Your task to perform on an android device: open sync settings in chrome Image 0: 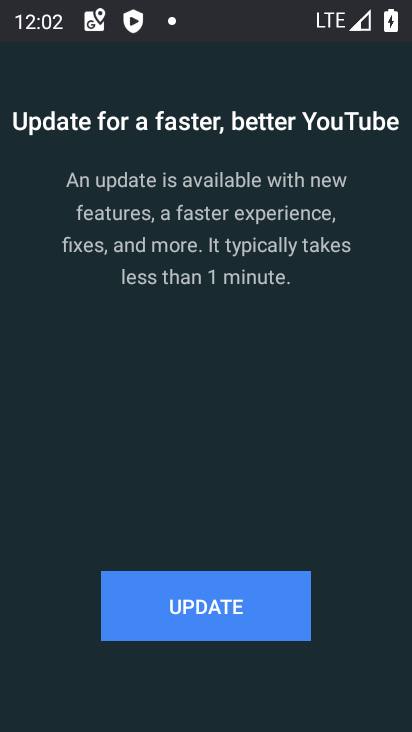
Step 0: press home button
Your task to perform on an android device: open sync settings in chrome Image 1: 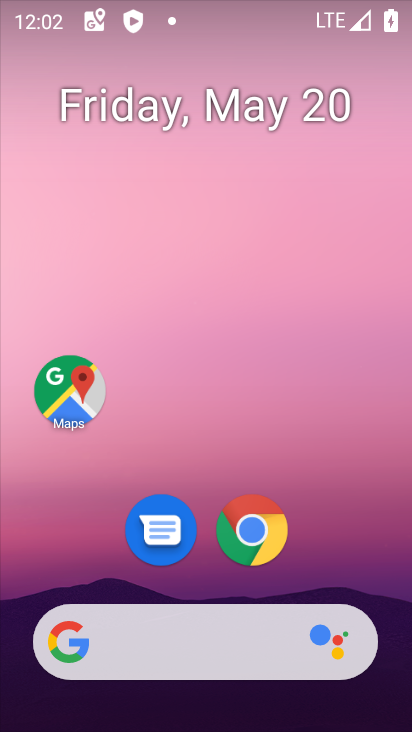
Step 1: click (245, 541)
Your task to perform on an android device: open sync settings in chrome Image 2: 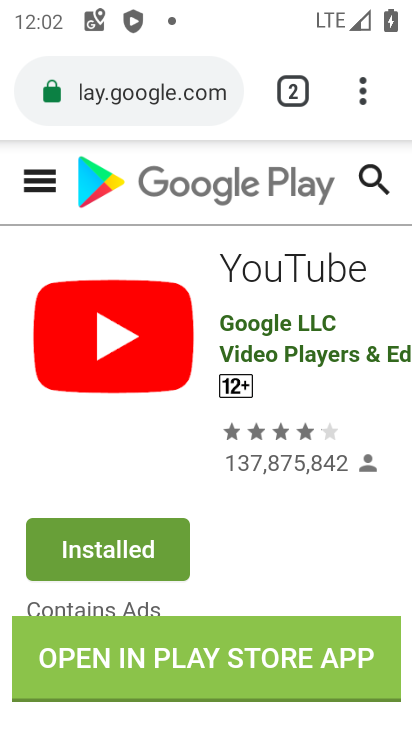
Step 2: click (374, 94)
Your task to perform on an android device: open sync settings in chrome Image 3: 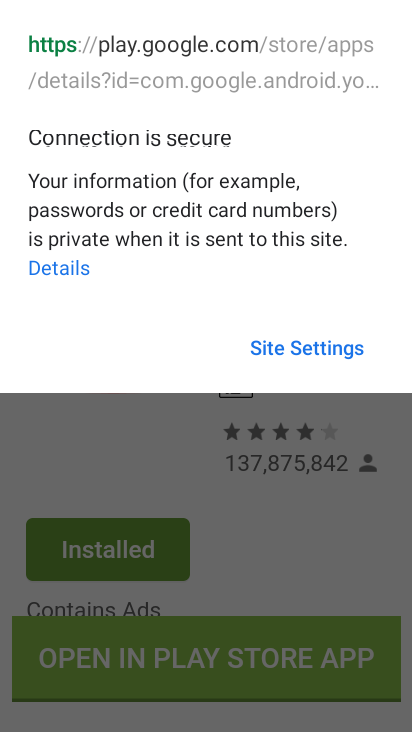
Step 3: click (276, 448)
Your task to perform on an android device: open sync settings in chrome Image 4: 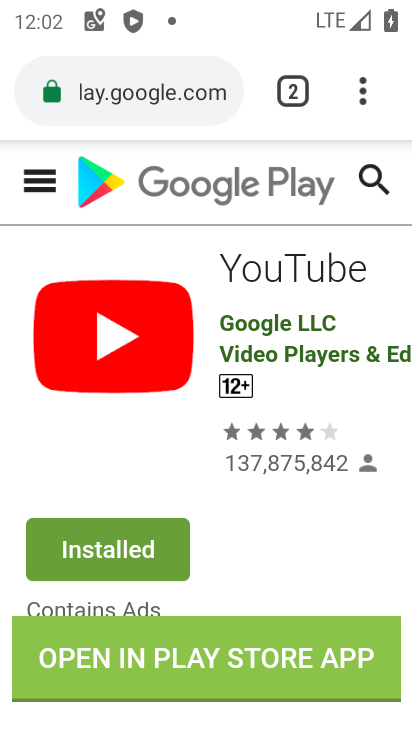
Step 4: click (368, 85)
Your task to perform on an android device: open sync settings in chrome Image 5: 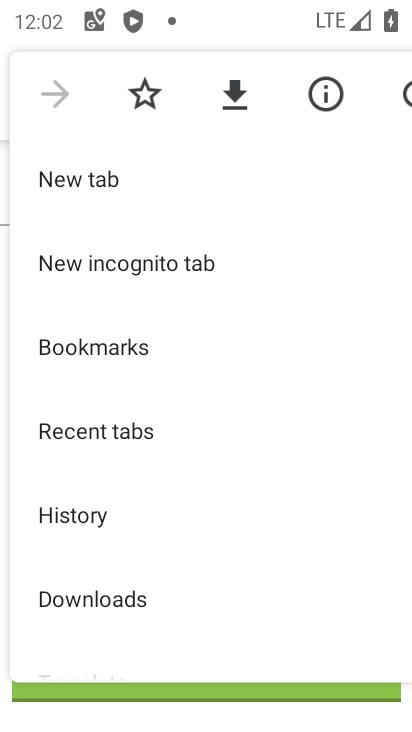
Step 5: drag from (251, 565) to (302, 116)
Your task to perform on an android device: open sync settings in chrome Image 6: 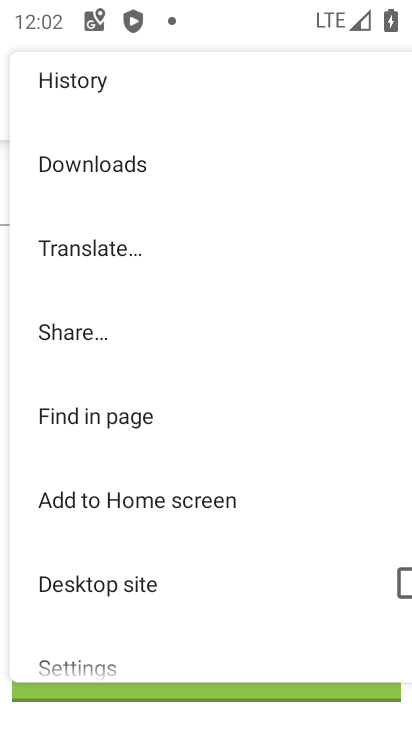
Step 6: drag from (210, 565) to (323, 202)
Your task to perform on an android device: open sync settings in chrome Image 7: 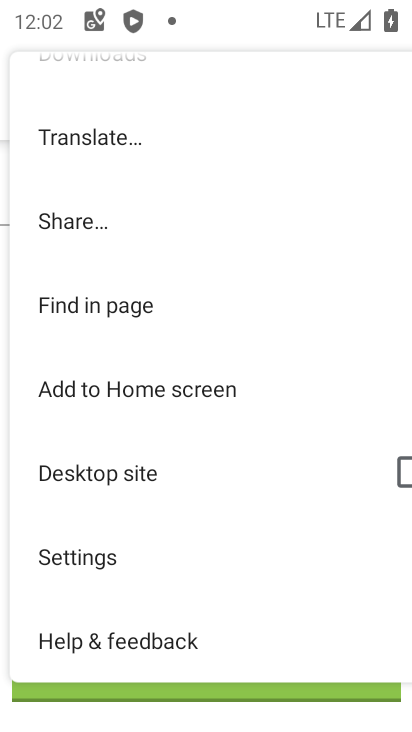
Step 7: click (128, 562)
Your task to perform on an android device: open sync settings in chrome Image 8: 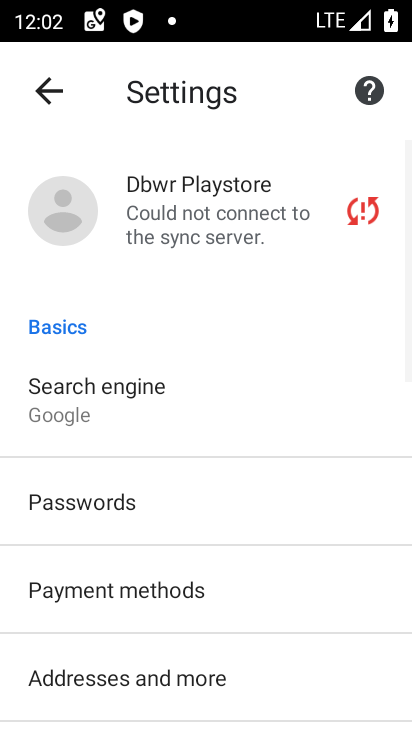
Step 8: click (229, 216)
Your task to perform on an android device: open sync settings in chrome Image 9: 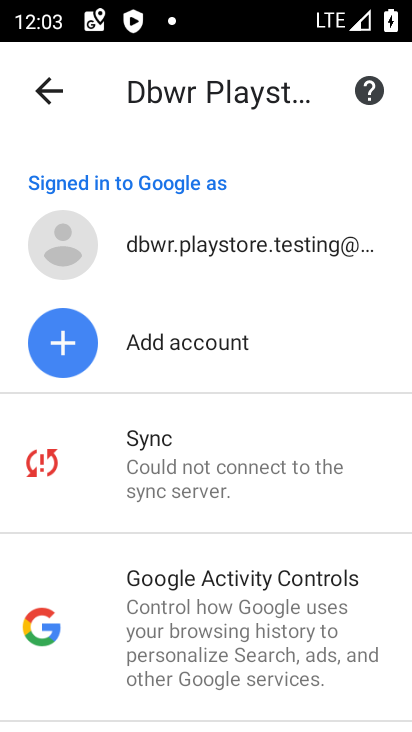
Step 9: task complete